Your task to perform on an android device: Open Youtube and go to "Your channel" Image 0: 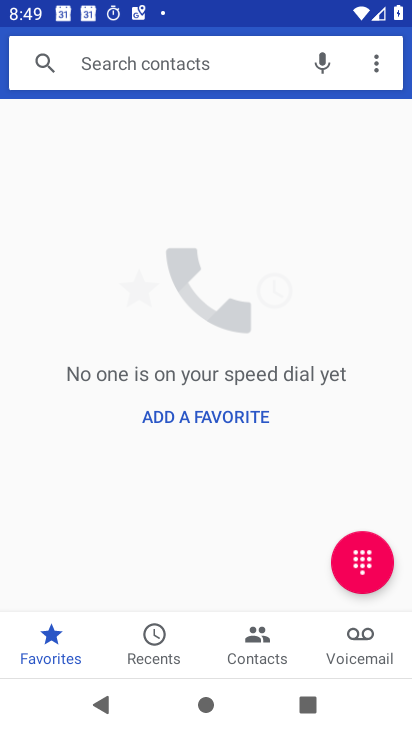
Step 0: press home button
Your task to perform on an android device: Open Youtube and go to "Your channel" Image 1: 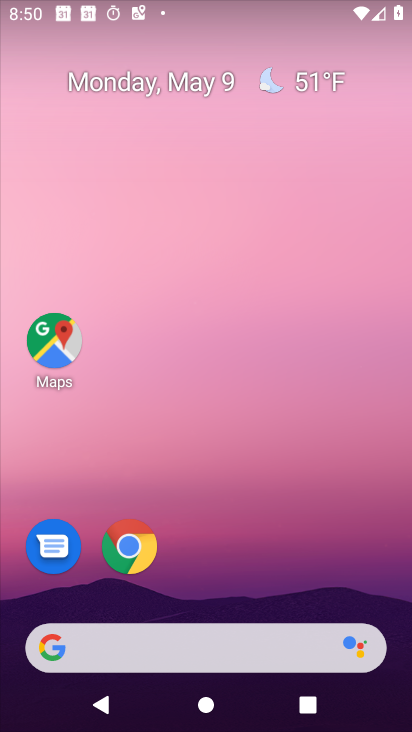
Step 1: drag from (258, 585) to (202, 85)
Your task to perform on an android device: Open Youtube and go to "Your channel" Image 2: 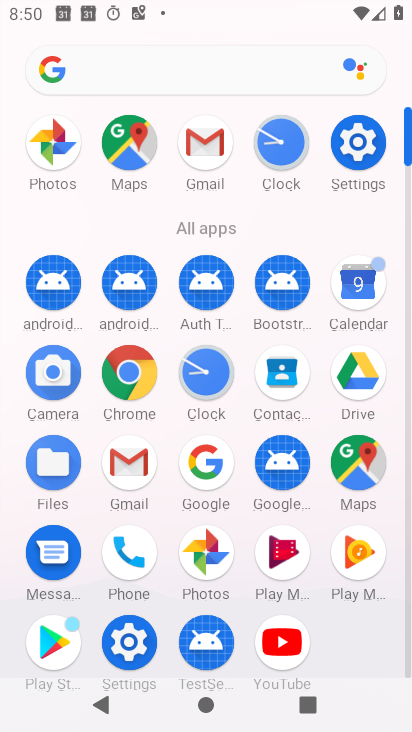
Step 2: click (281, 643)
Your task to perform on an android device: Open Youtube and go to "Your channel" Image 3: 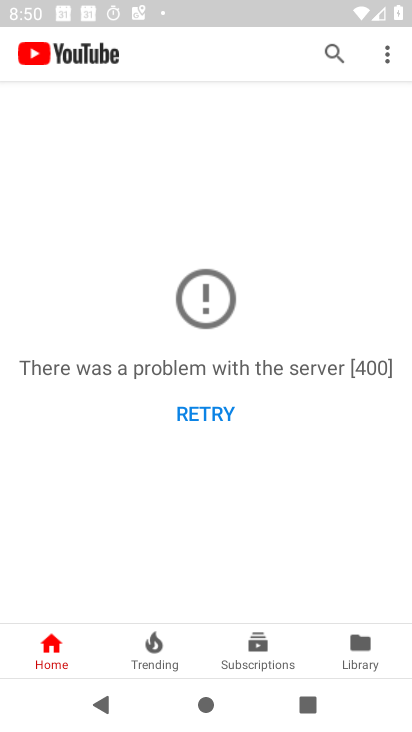
Step 3: task complete